Your task to perform on an android device: open a bookmark in the chrome app Image 0: 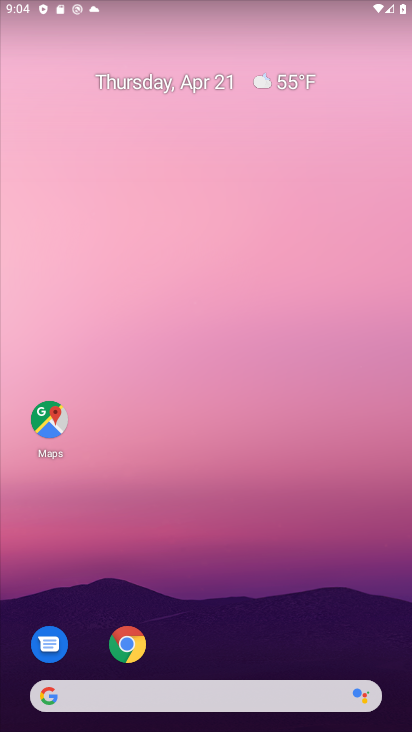
Step 0: click (125, 652)
Your task to perform on an android device: open a bookmark in the chrome app Image 1: 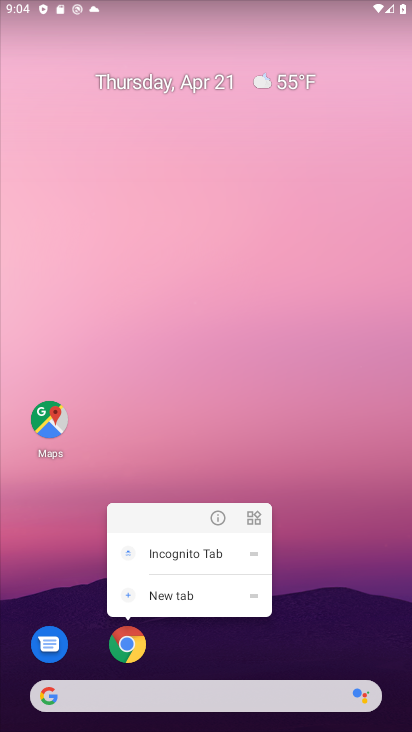
Step 1: click (339, 555)
Your task to perform on an android device: open a bookmark in the chrome app Image 2: 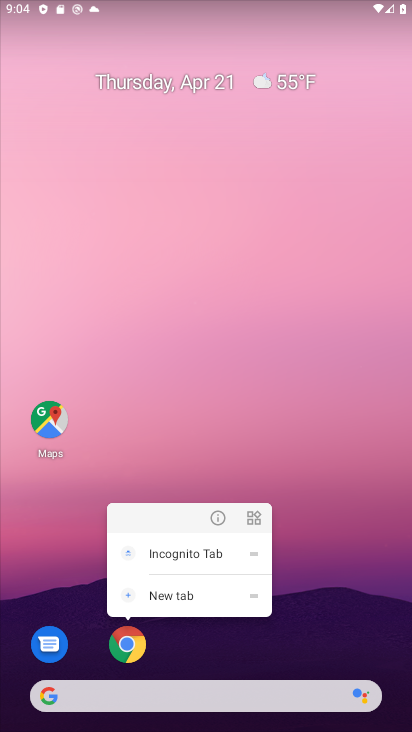
Step 2: drag from (303, 615) to (370, 110)
Your task to perform on an android device: open a bookmark in the chrome app Image 3: 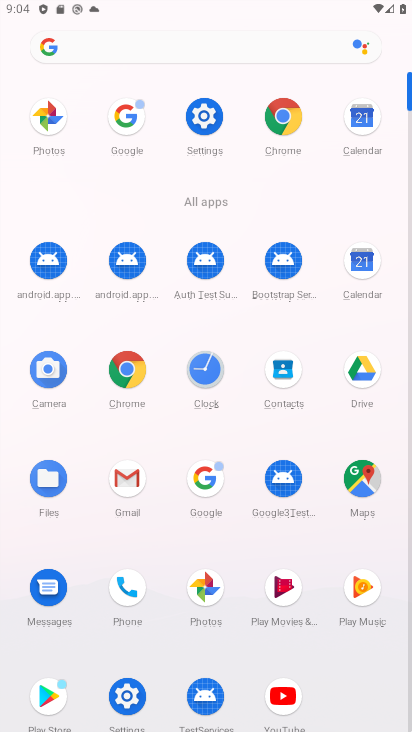
Step 3: click (285, 110)
Your task to perform on an android device: open a bookmark in the chrome app Image 4: 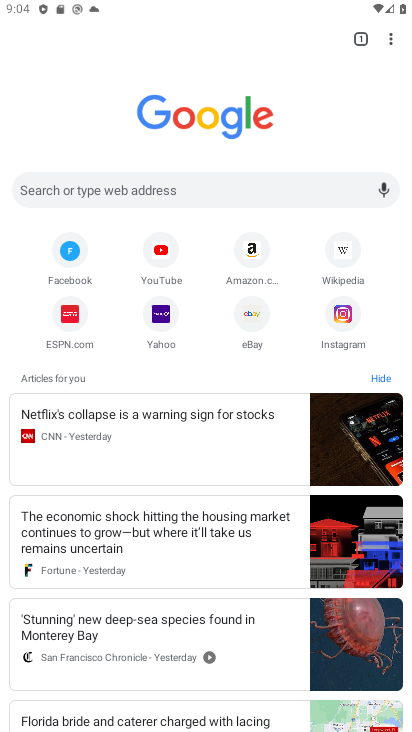
Step 4: drag from (391, 34) to (283, 203)
Your task to perform on an android device: open a bookmark in the chrome app Image 5: 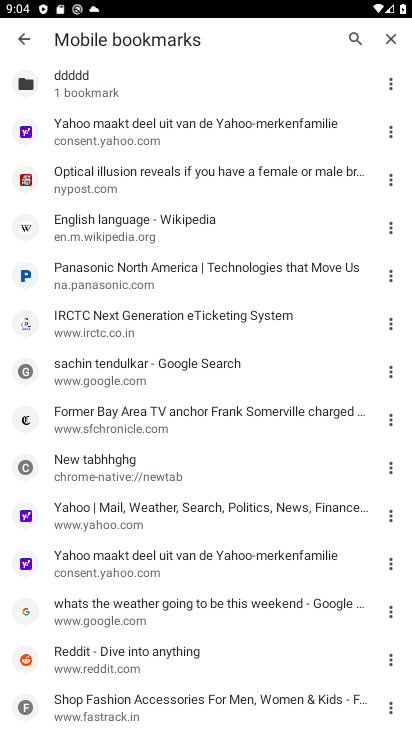
Step 5: click (183, 130)
Your task to perform on an android device: open a bookmark in the chrome app Image 6: 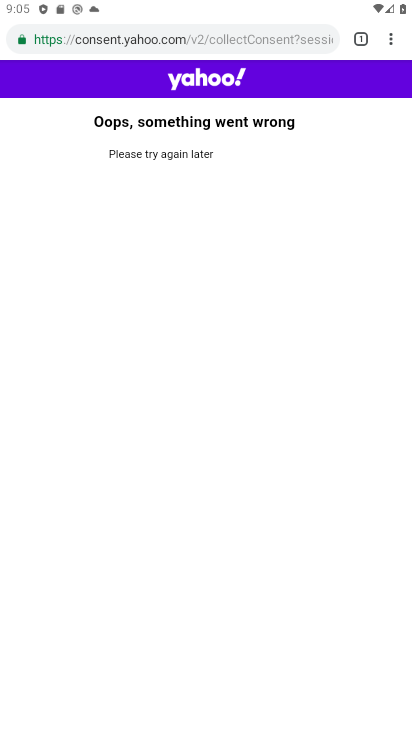
Step 6: task complete